Your task to perform on an android device: Open the calendar and show me this week's events Image 0: 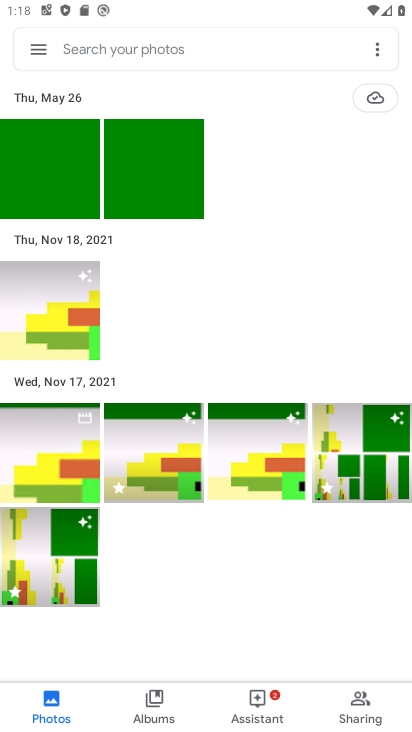
Step 0: press home button
Your task to perform on an android device: Open the calendar and show me this week's events Image 1: 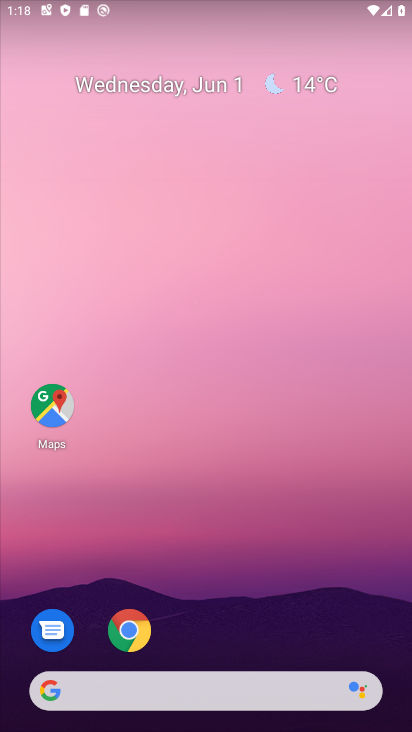
Step 1: drag from (207, 656) to (172, 65)
Your task to perform on an android device: Open the calendar and show me this week's events Image 2: 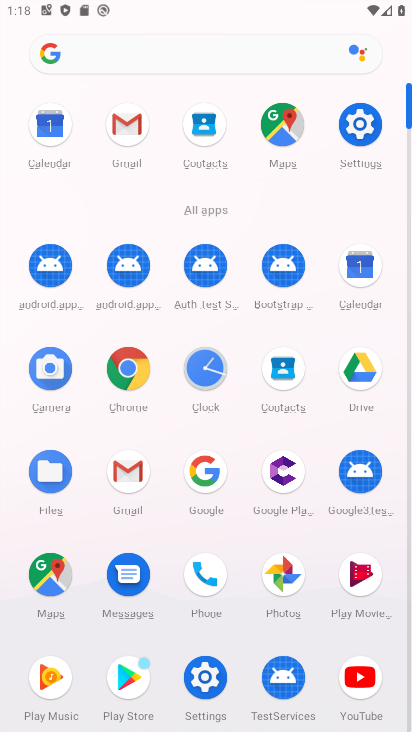
Step 2: click (360, 258)
Your task to perform on an android device: Open the calendar and show me this week's events Image 3: 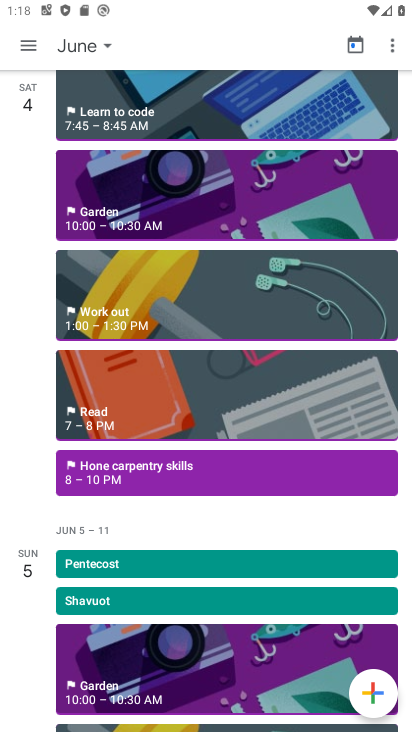
Step 3: click (30, 43)
Your task to perform on an android device: Open the calendar and show me this week's events Image 4: 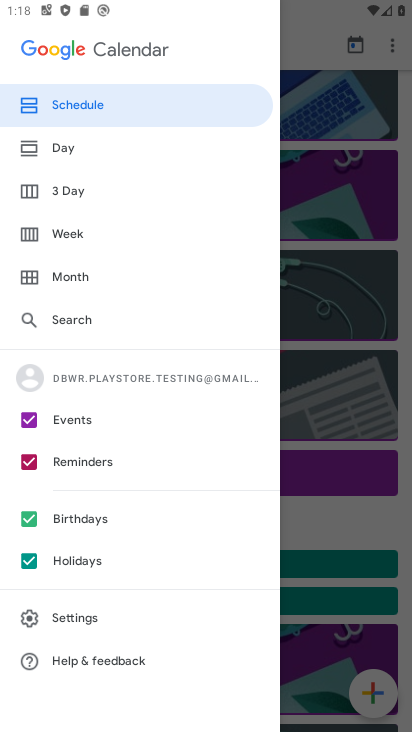
Step 4: click (25, 458)
Your task to perform on an android device: Open the calendar and show me this week's events Image 5: 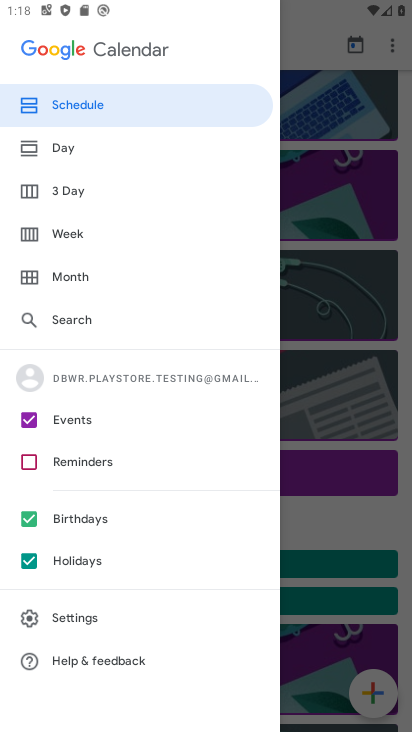
Step 5: click (27, 518)
Your task to perform on an android device: Open the calendar and show me this week's events Image 6: 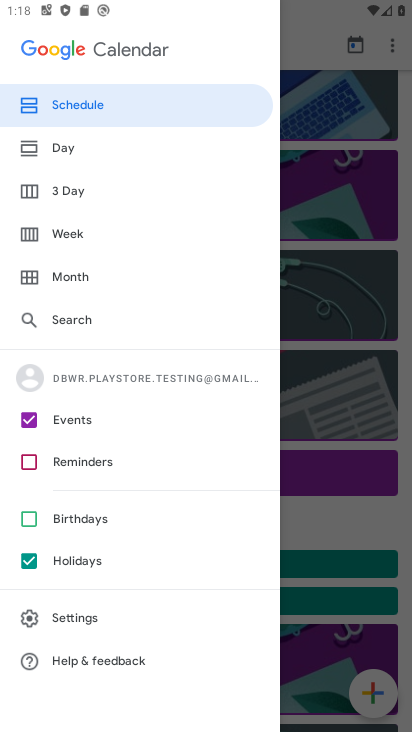
Step 6: click (30, 557)
Your task to perform on an android device: Open the calendar and show me this week's events Image 7: 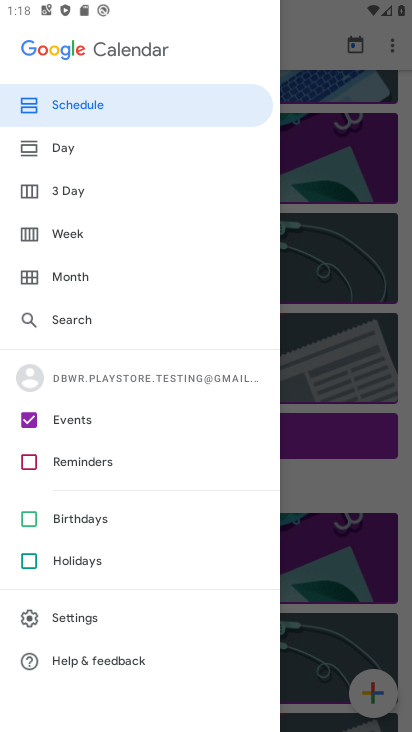
Step 7: click (47, 230)
Your task to perform on an android device: Open the calendar and show me this week's events Image 8: 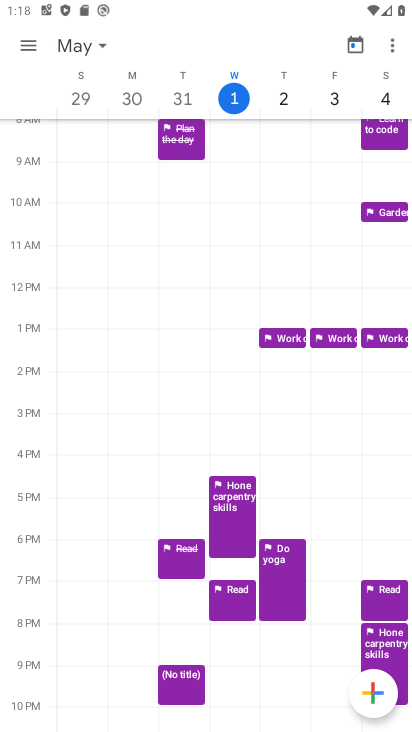
Step 8: click (238, 93)
Your task to perform on an android device: Open the calendar and show me this week's events Image 9: 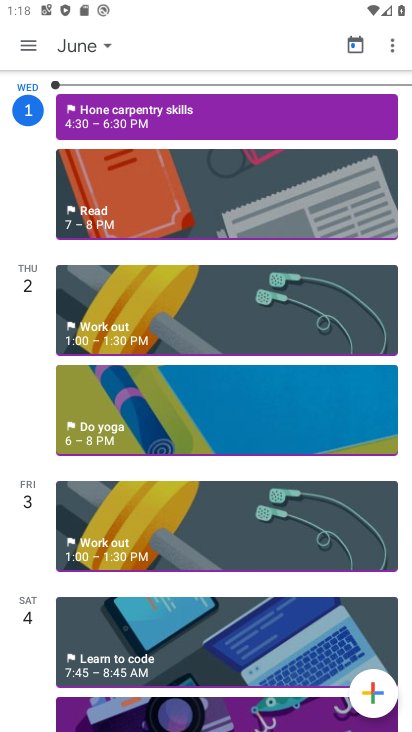
Step 9: task complete